Your task to perform on an android device: change the upload size in google photos Image 0: 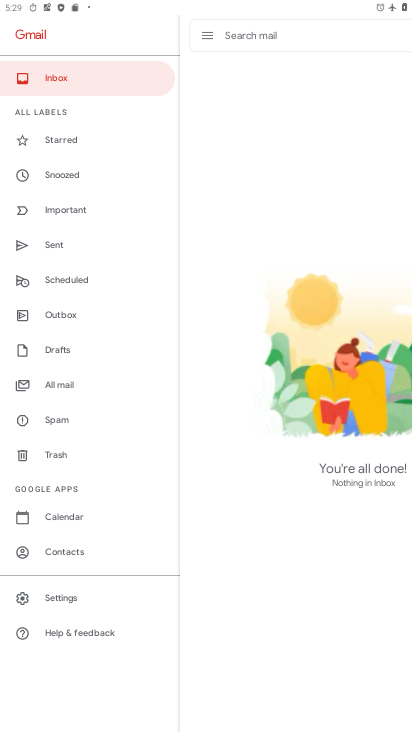
Step 0: press home button
Your task to perform on an android device: change the upload size in google photos Image 1: 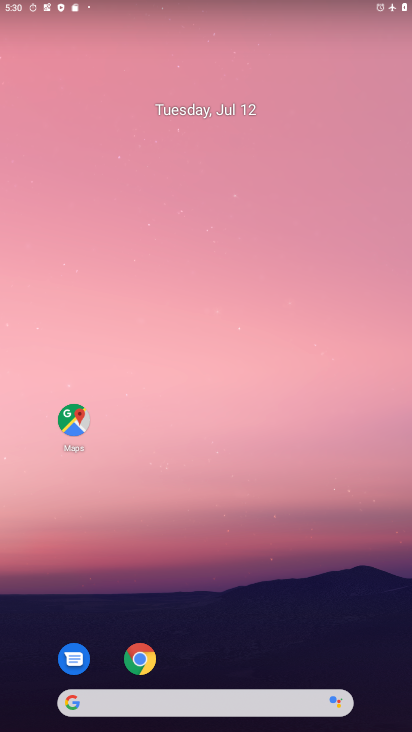
Step 1: drag from (188, 501) to (225, 254)
Your task to perform on an android device: change the upload size in google photos Image 2: 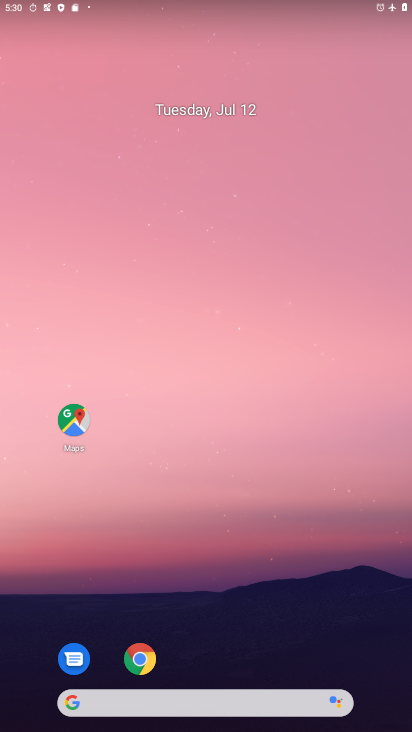
Step 2: drag from (214, 255) to (248, 137)
Your task to perform on an android device: change the upload size in google photos Image 3: 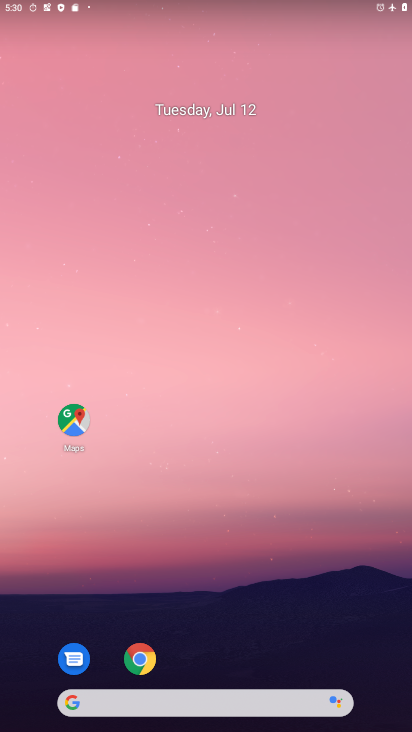
Step 3: drag from (248, 113) to (258, 35)
Your task to perform on an android device: change the upload size in google photos Image 4: 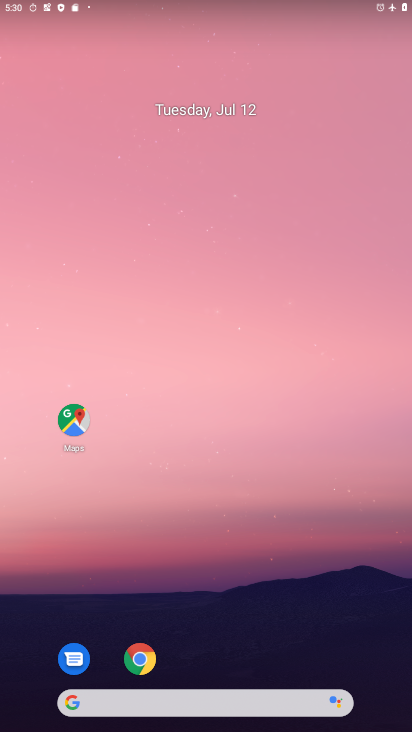
Step 4: drag from (195, 607) to (218, 243)
Your task to perform on an android device: change the upload size in google photos Image 5: 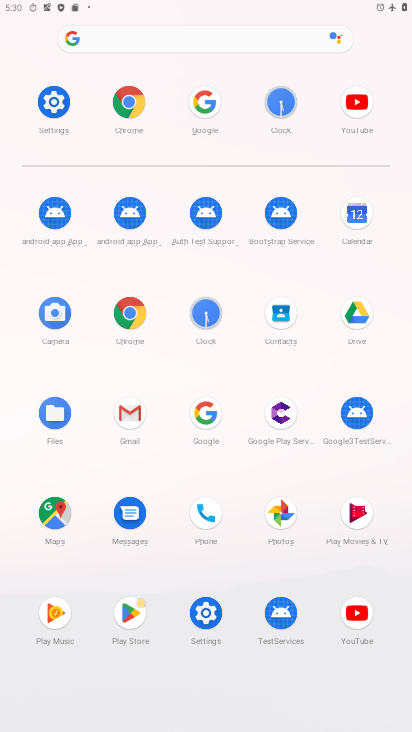
Step 5: click (287, 518)
Your task to perform on an android device: change the upload size in google photos Image 6: 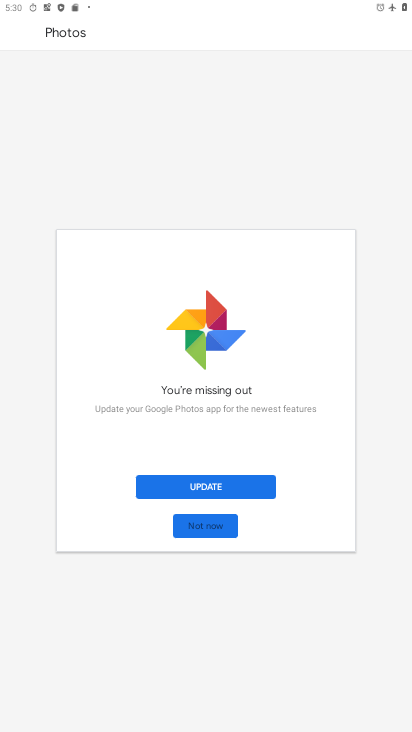
Step 6: click (199, 522)
Your task to perform on an android device: change the upload size in google photos Image 7: 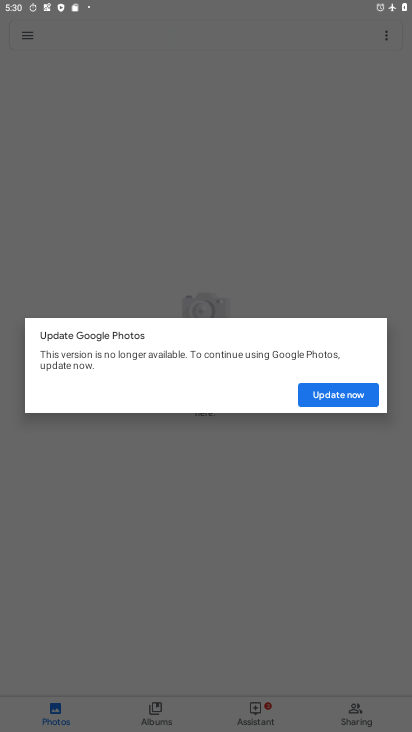
Step 7: click (315, 390)
Your task to perform on an android device: change the upload size in google photos Image 8: 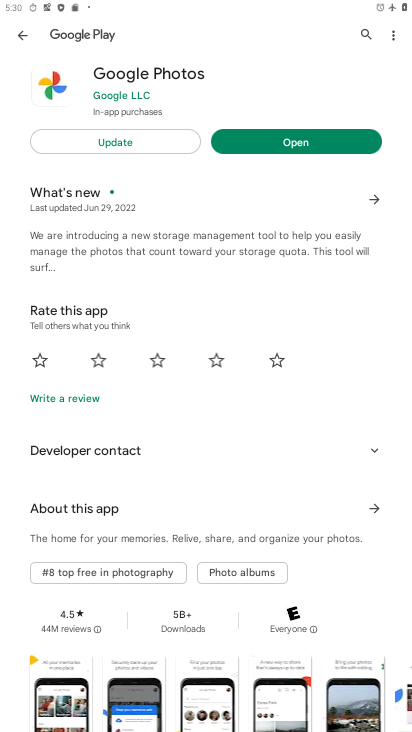
Step 8: click (262, 133)
Your task to perform on an android device: change the upload size in google photos Image 9: 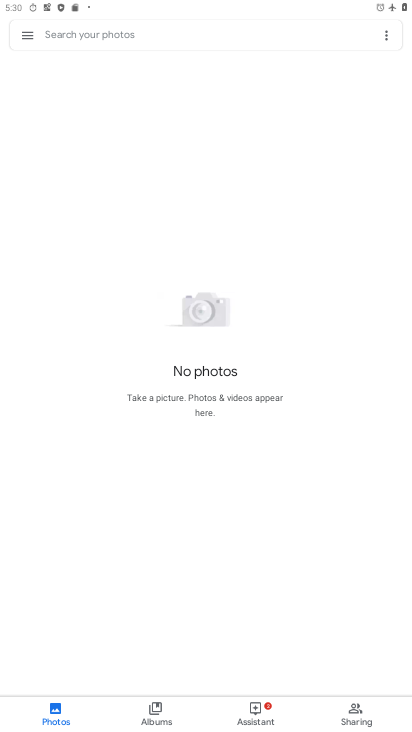
Step 9: click (29, 40)
Your task to perform on an android device: change the upload size in google photos Image 10: 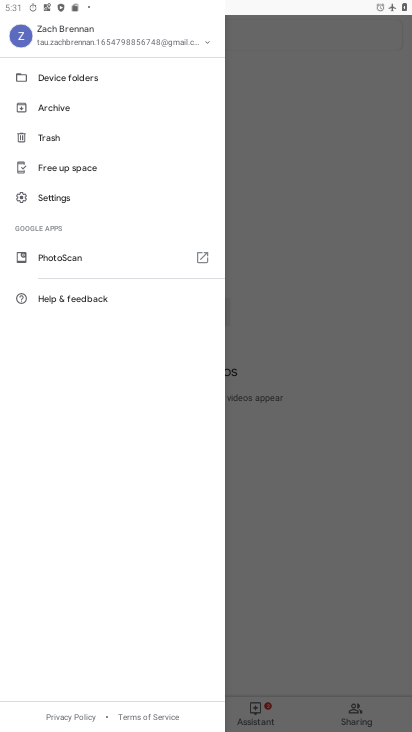
Step 10: click (60, 198)
Your task to perform on an android device: change the upload size in google photos Image 11: 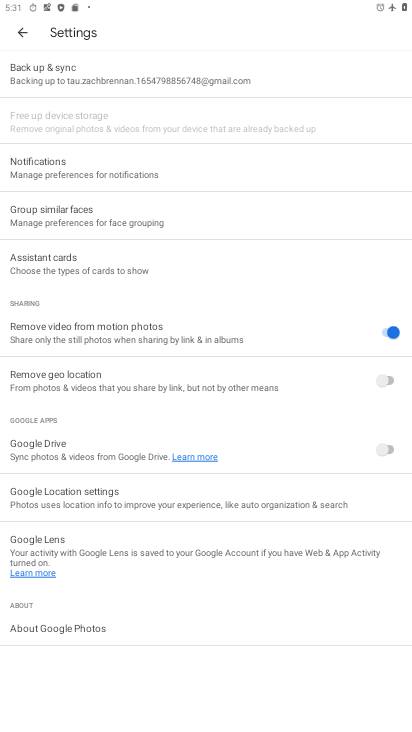
Step 11: click (128, 73)
Your task to perform on an android device: change the upload size in google photos Image 12: 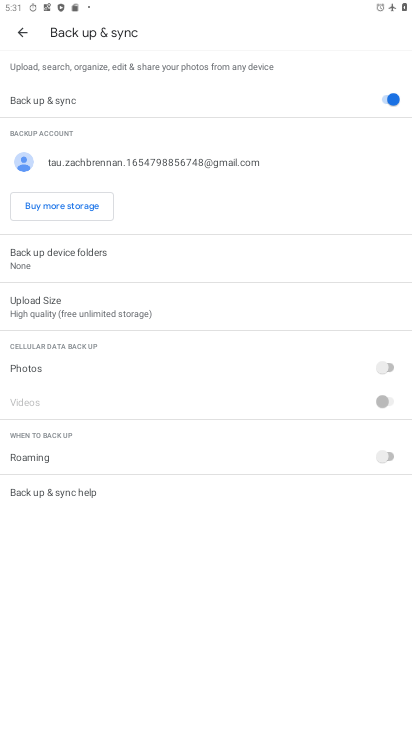
Step 12: click (42, 301)
Your task to perform on an android device: change the upload size in google photos Image 13: 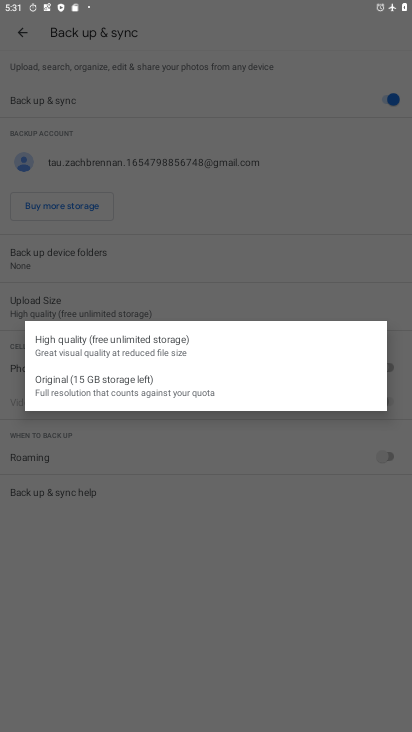
Step 13: click (108, 392)
Your task to perform on an android device: change the upload size in google photos Image 14: 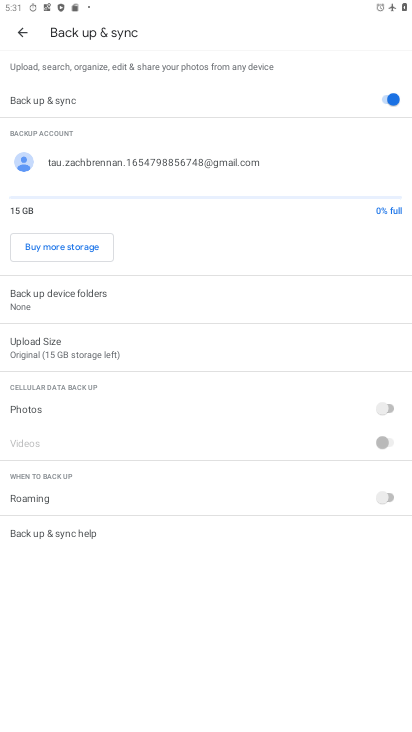
Step 14: task complete